Your task to perform on an android device: Search for seafood restaurants on Google Maps Image 0: 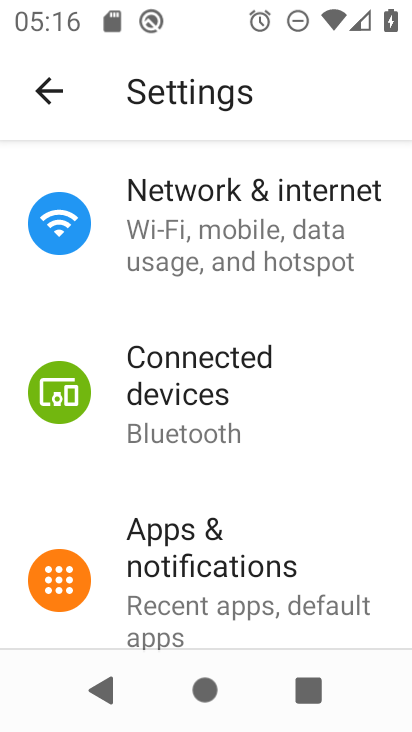
Step 0: press home button
Your task to perform on an android device: Search for seafood restaurants on Google Maps Image 1: 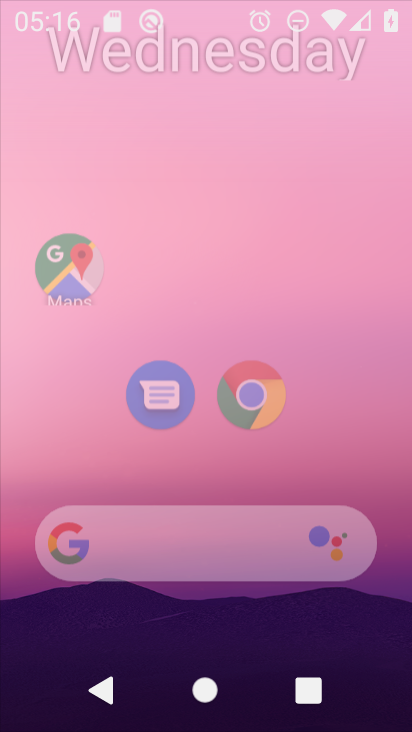
Step 1: click (375, 319)
Your task to perform on an android device: Search for seafood restaurants on Google Maps Image 2: 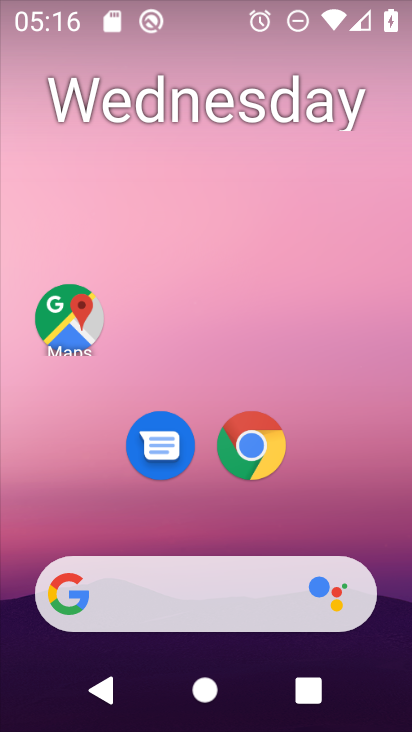
Step 2: click (71, 326)
Your task to perform on an android device: Search for seafood restaurants on Google Maps Image 3: 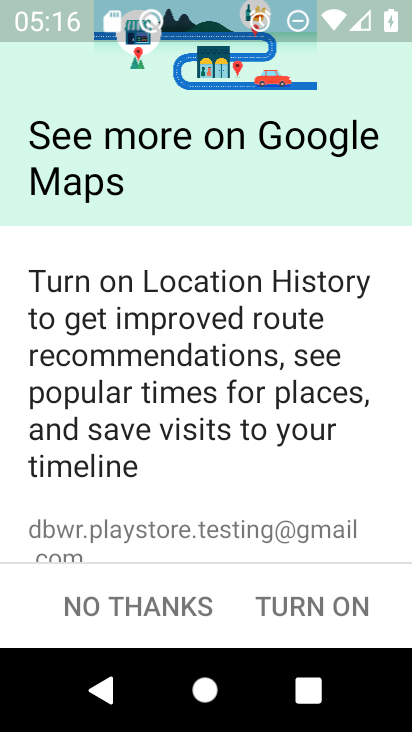
Step 3: click (317, 598)
Your task to perform on an android device: Search for seafood restaurants on Google Maps Image 4: 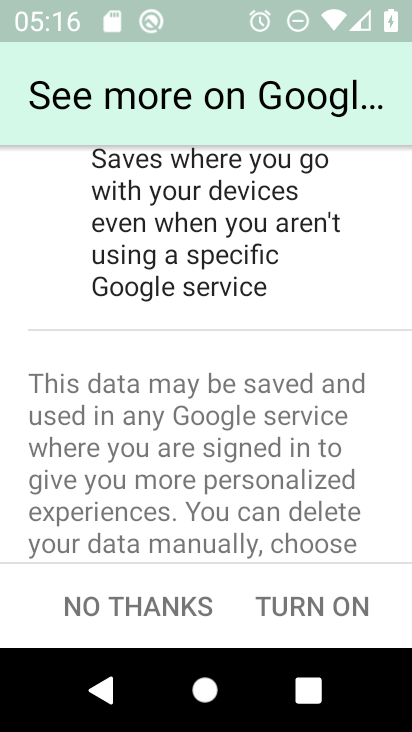
Step 4: click (311, 606)
Your task to perform on an android device: Search for seafood restaurants on Google Maps Image 5: 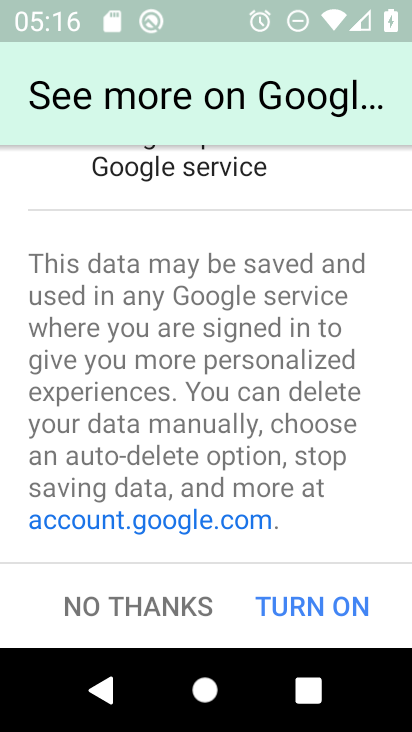
Step 5: click (311, 606)
Your task to perform on an android device: Search for seafood restaurants on Google Maps Image 6: 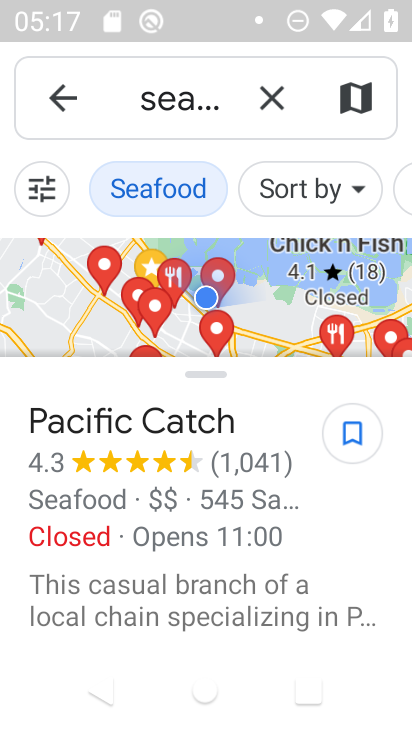
Step 6: task complete